Your task to perform on an android device: Open notification settings Image 0: 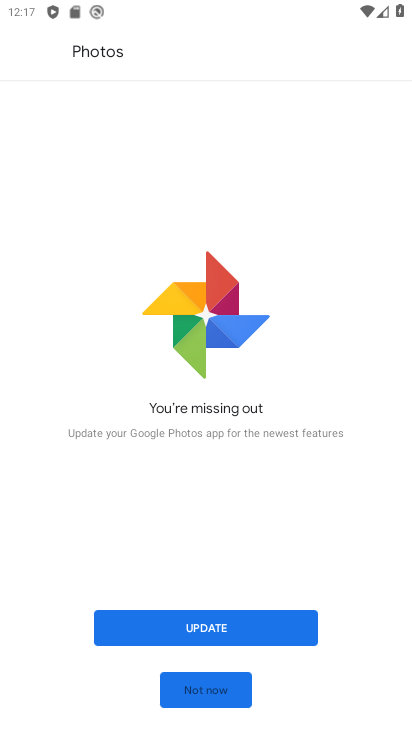
Step 0: press home button
Your task to perform on an android device: Open notification settings Image 1: 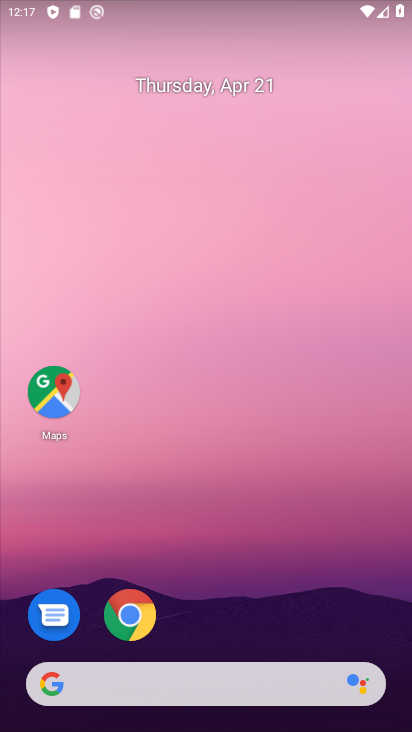
Step 1: drag from (223, 647) to (273, 42)
Your task to perform on an android device: Open notification settings Image 2: 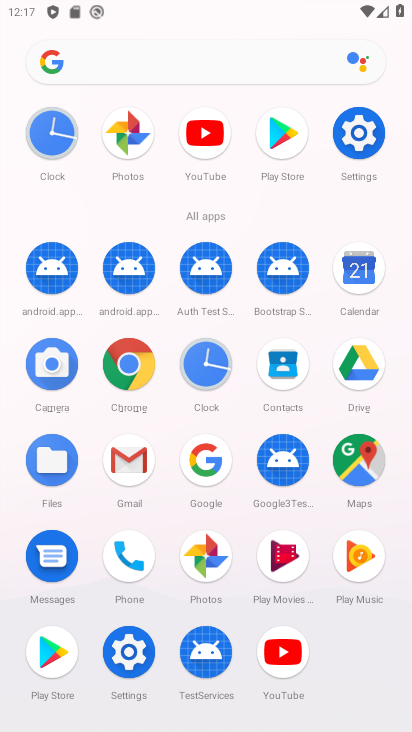
Step 2: click (365, 147)
Your task to perform on an android device: Open notification settings Image 3: 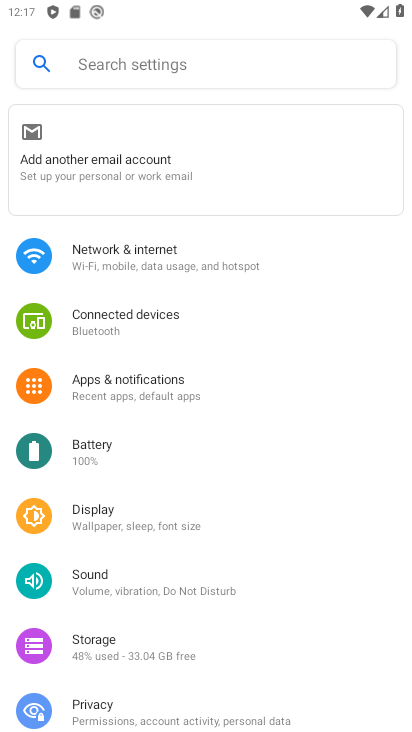
Step 3: click (127, 401)
Your task to perform on an android device: Open notification settings Image 4: 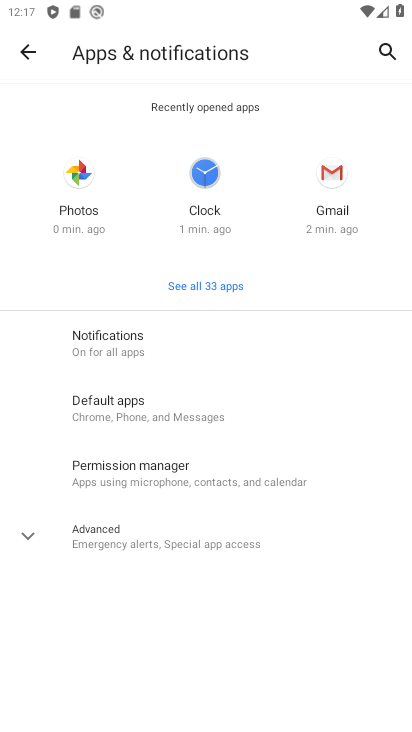
Step 4: click (181, 337)
Your task to perform on an android device: Open notification settings Image 5: 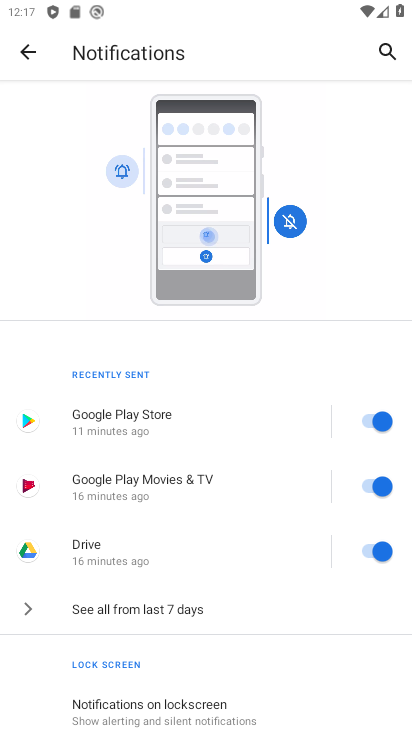
Step 5: task complete